Your task to perform on an android device: open device folders in google photos Image 0: 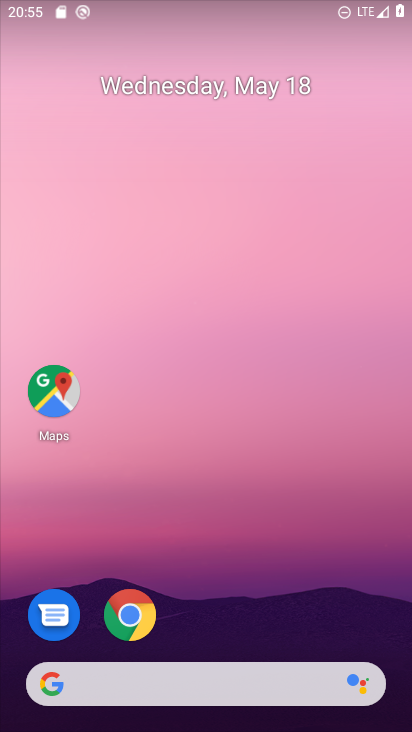
Step 0: drag from (209, 686) to (180, 92)
Your task to perform on an android device: open device folders in google photos Image 1: 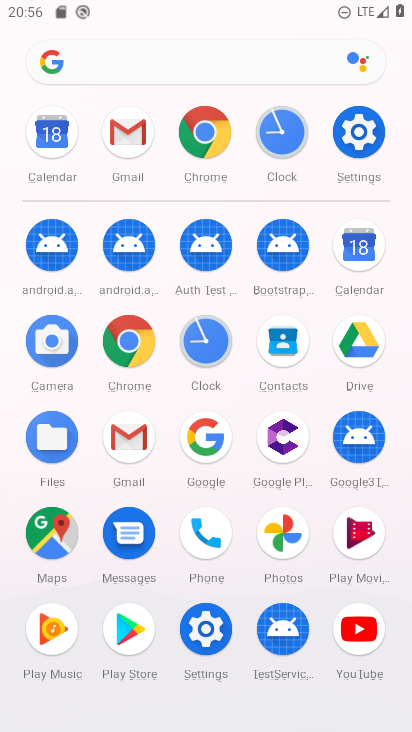
Step 1: click (292, 543)
Your task to perform on an android device: open device folders in google photos Image 2: 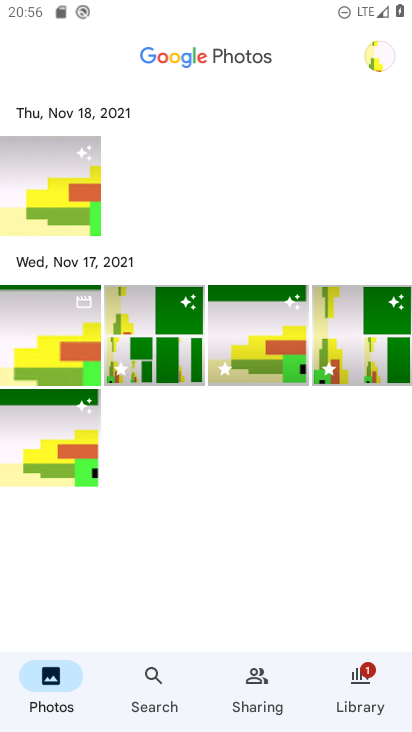
Step 2: click (367, 690)
Your task to perform on an android device: open device folders in google photos Image 3: 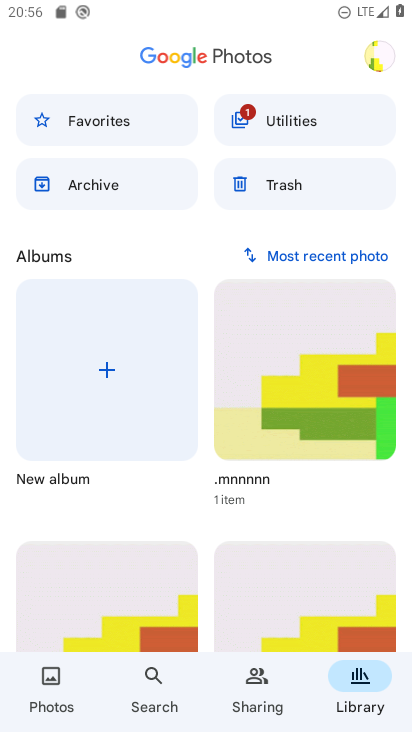
Step 3: task complete